Your task to perform on an android device: make emails show in primary in the gmail app Image 0: 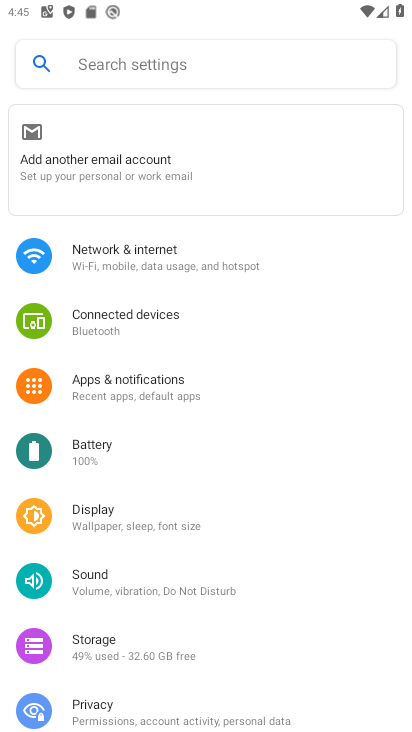
Step 0: press home button
Your task to perform on an android device: make emails show in primary in the gmail app Image 1: 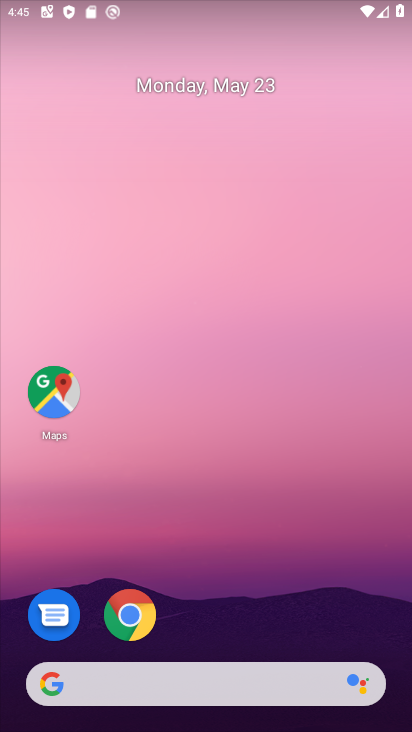
Step 1: drag from (249, 589) to (320, 42)
Your task to perform on an android device: make emails show in primary in the gmail app Image 2: 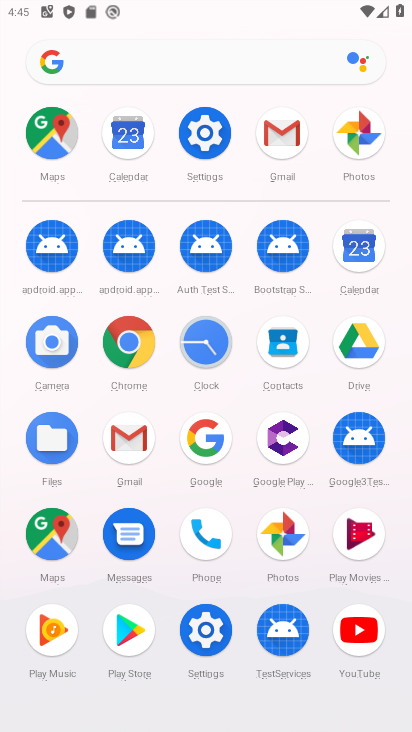
Step 2: click (276, 137)
Your task to perform on an android device: make emails show in primary in the gmail app Image 3: 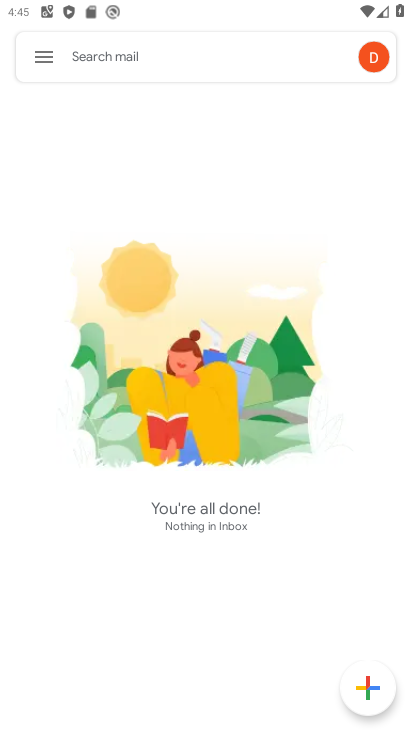
Step 3: click (41, 56)
Your task to perform on an android device: make emails show in primary in the gmail app Image 4: 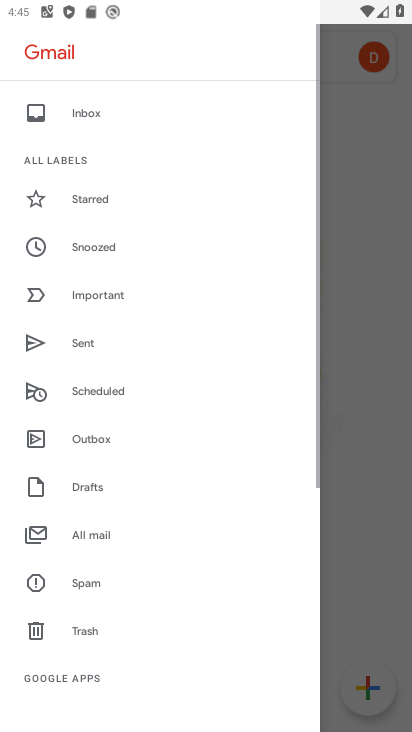
Step 4: drag from (87, 639) to (175, 87)
Your task to perform on an android device: make emails show in primary in the gmail app Image 5: 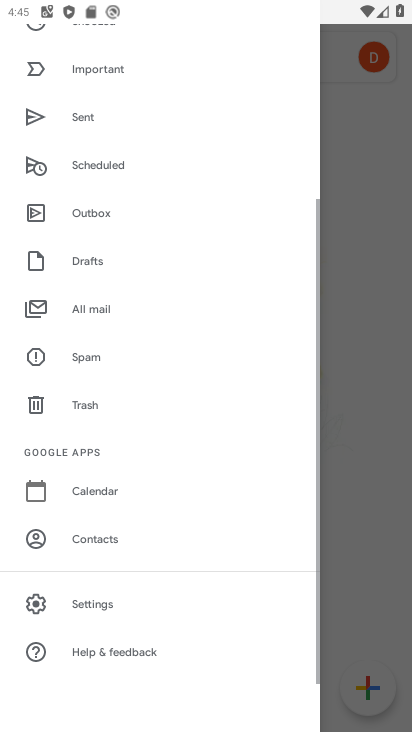
Step 5: click (86, 599)
Your task to perform on an android device: make emails show in primary in the gmail app Image 6: 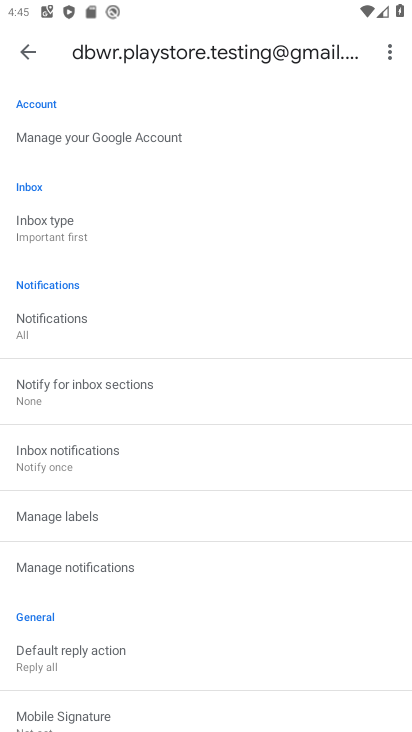
Step 6: task complete